Your task to perform on an android device: open wifi settings Image 0: 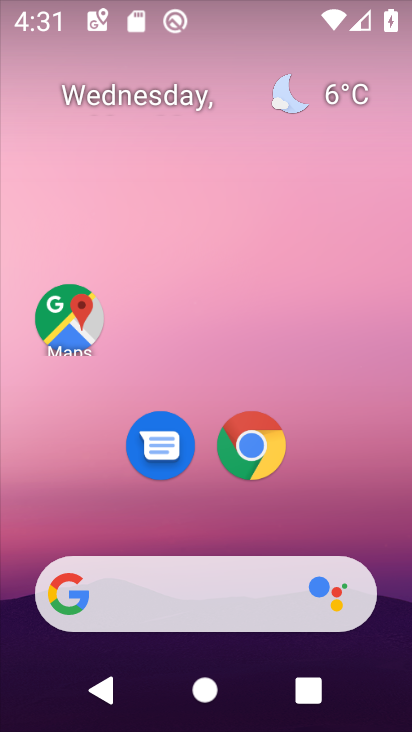
Step 0: drag from (212, 527) to (265, 66)
Your task to perform on an android device: open wifi settings Image 1: 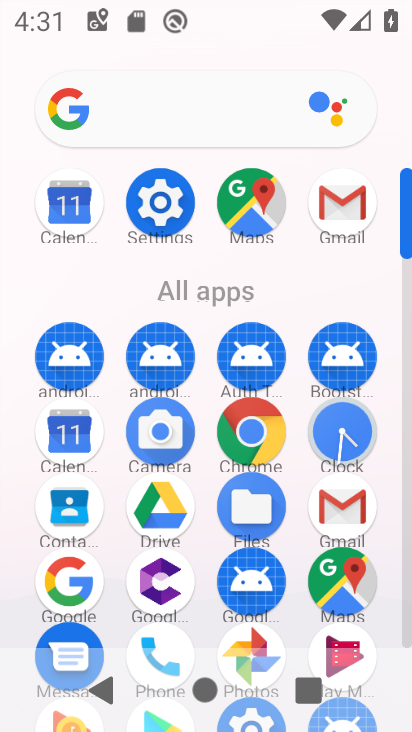
Step 1: click (164, 214)
Your task to perform on an android device: open wifi settings Image 2: 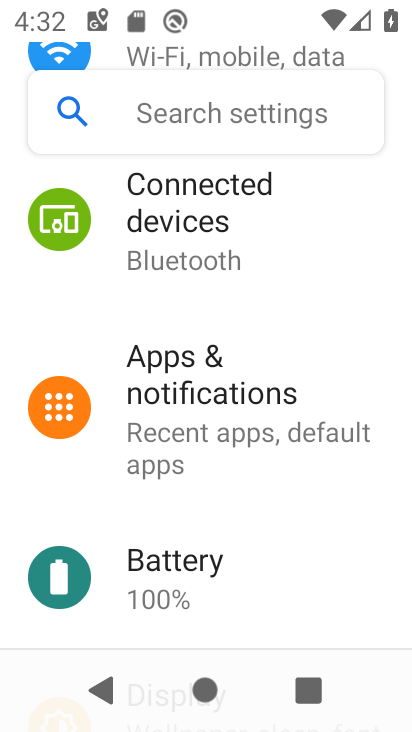
Step 2: drag from (178, 293) to (197, 653)
Your task to perform on an android device: open wifi settings Image 3: 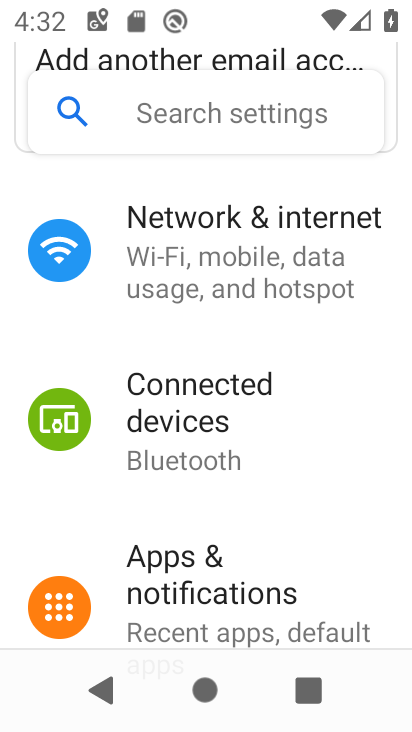
Step 3: drag from (181, 330) to (164, 677)
Your task to perform on an android device: open wifi settings Image 4: 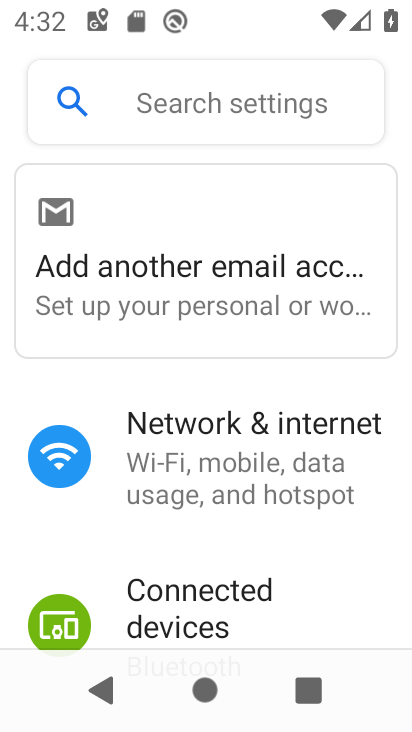
Step 4: click (212, 463)
Your task to perform on an android device: open wifi settings Image 5: 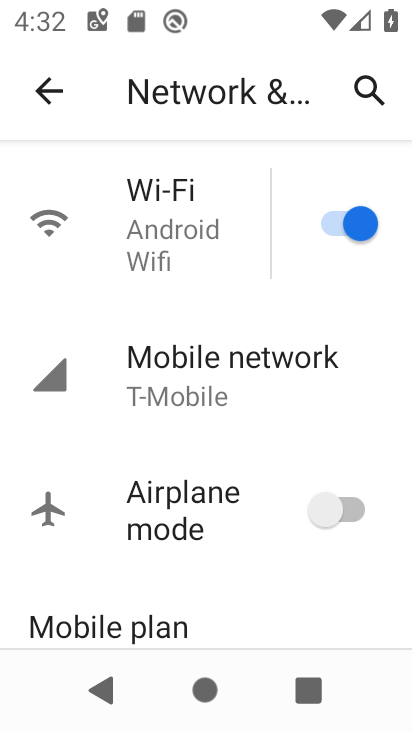
Step 5: click (163, 280)
Your task to perform on an android device: open wifi settings Image 6: 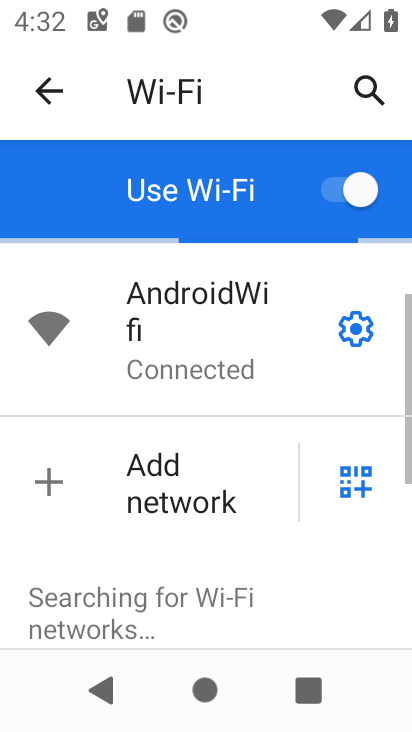
Step 6: task complete